Your task to perform on an android device: change alarm snooze length Image 0: 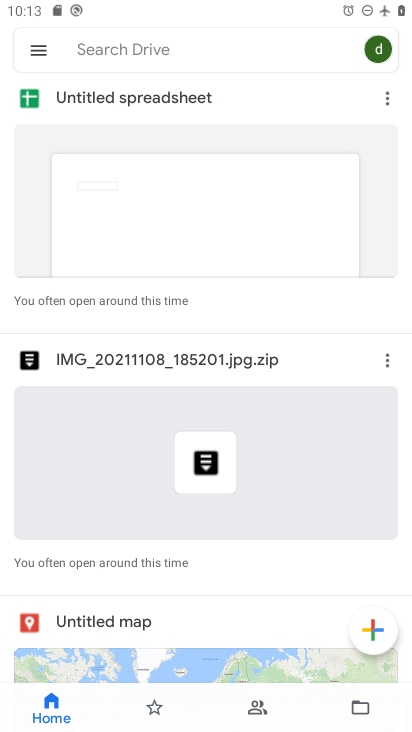
Step 0: press home button
Your task to perform on an android device: change alarm snooze length Image 1: 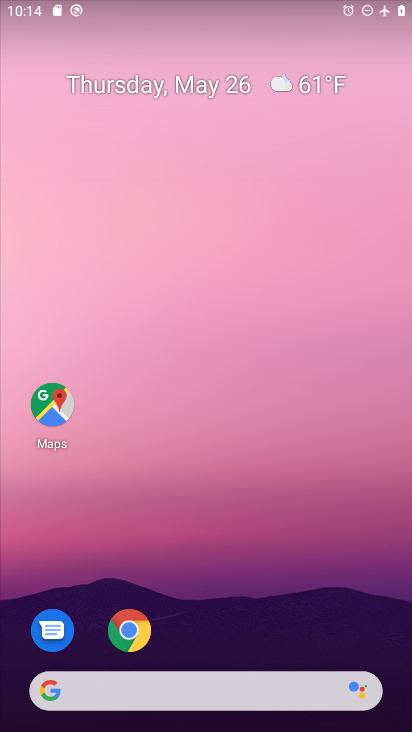
Step 1: drag from (197, 652) to (200, 149)
Your task to perform on an android device: change alarm snooze length Image 2: 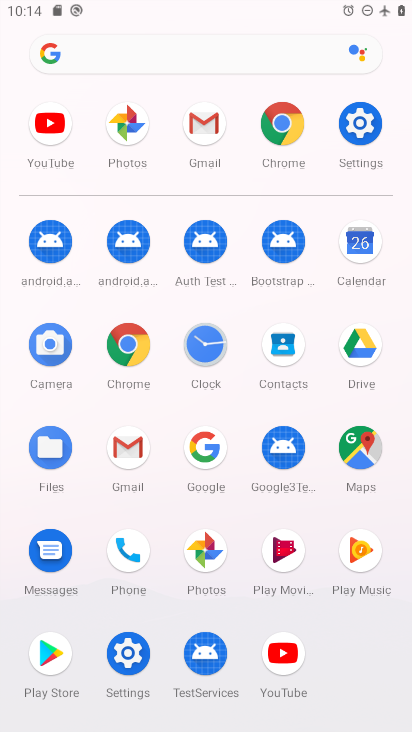
Step 2: click (209, 345)
Your task to perform on an android device: change alarm snooze length Image 3: 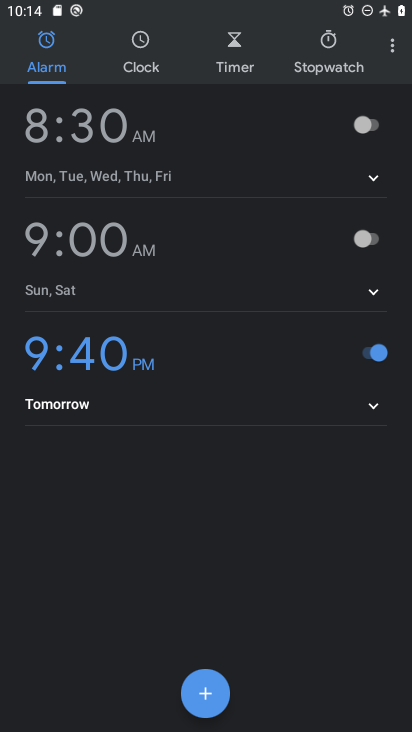
Step 3: click (382, 43)
Your task to perform on an android device: change alarm snooze length Image 4: 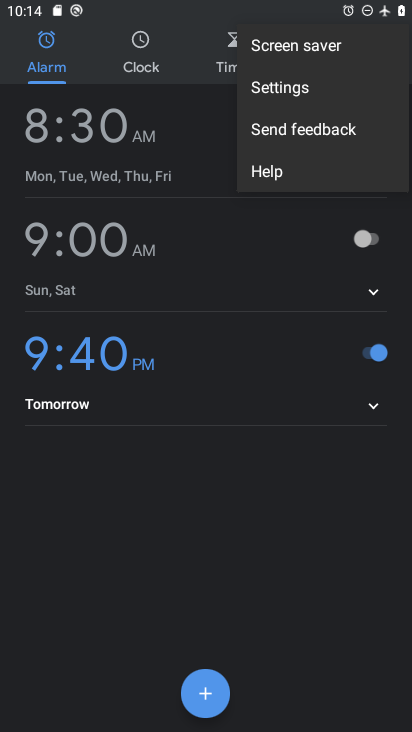
Step 4: click (292, 96)
Your task to perform on an android device: change alarm snooze length Image 5: 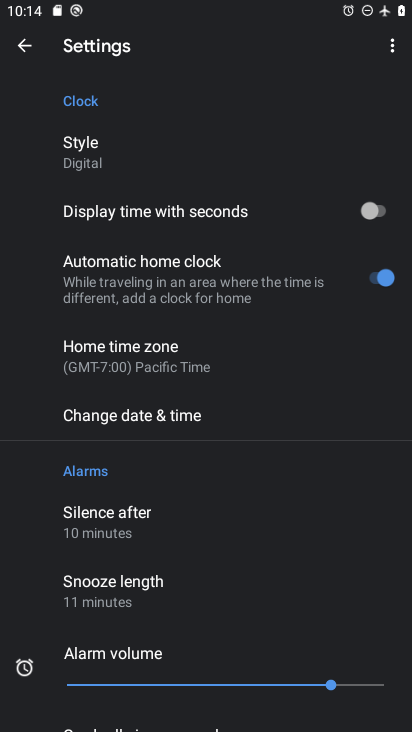
Step 5: click (124, 574)
Your task to perform on an android device: change alarm snooze length Image 6: 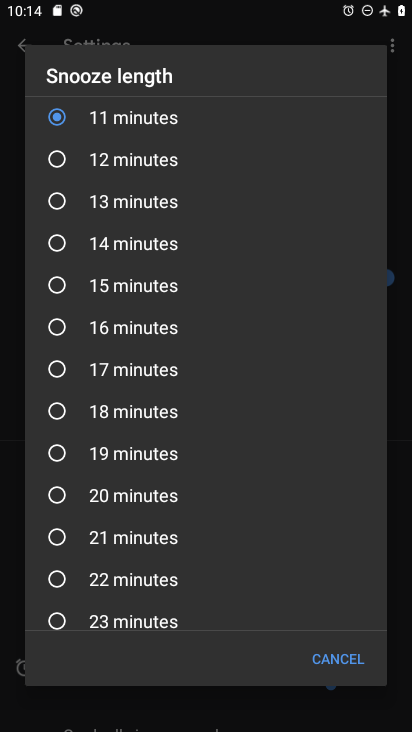
Step 6: click (101, 167)
Your task to perform on an android device: change alarm snooze length Image 7: 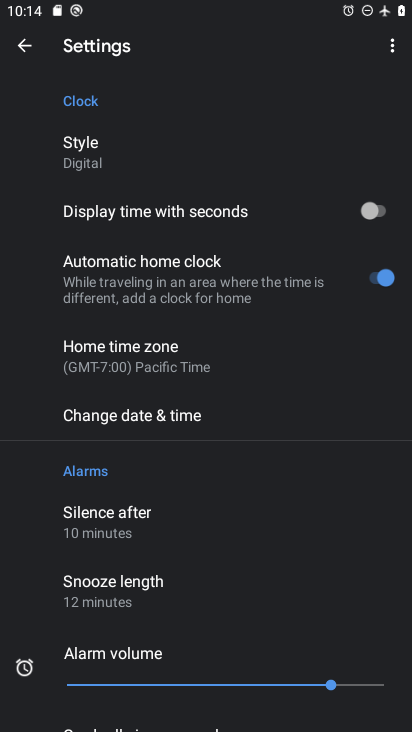
Step 7: task complete